Your task to perform on an android device: check google app version Image 0: 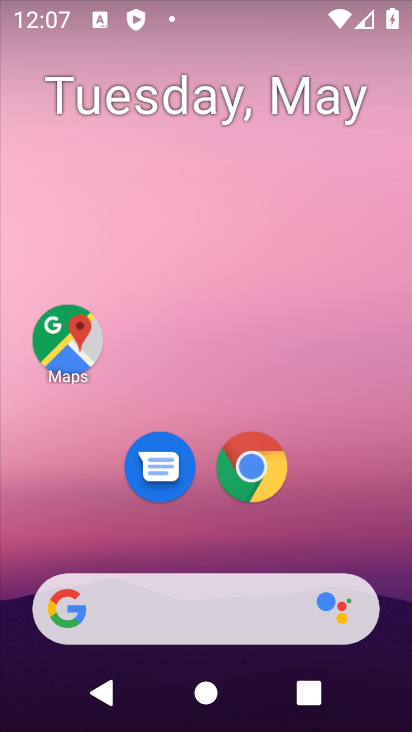
Step 0: drag from (300, 516) to (289, 51)
Your task to perform on an android device: check google app version Image 1: 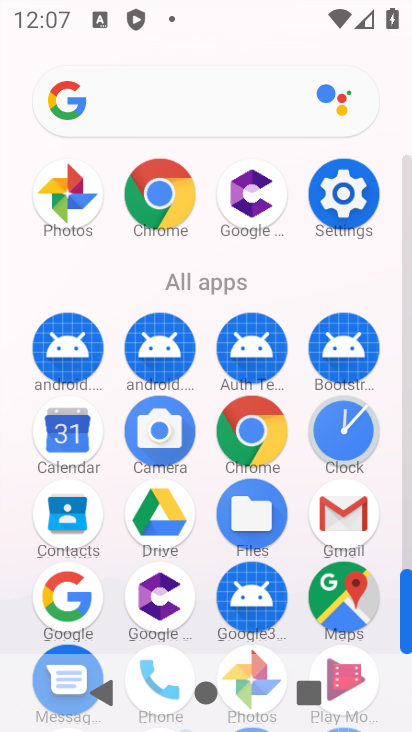
Step 1: click (82, 591)
Your task to perform on an android device: check google app version Image 2: 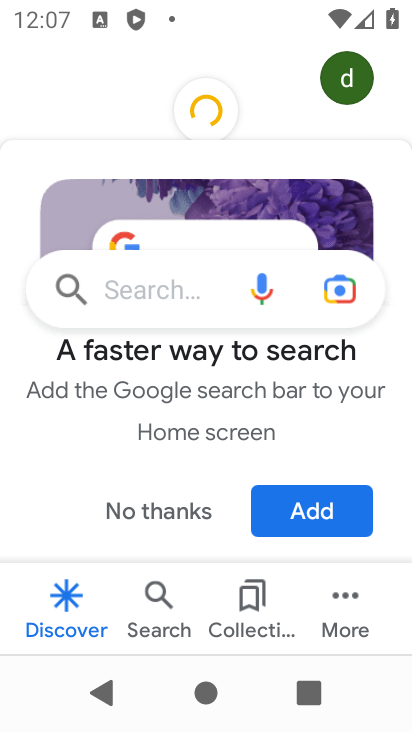
Step 2: click (345, 607)
Your task to perform on an android device: check google app version Image 3: 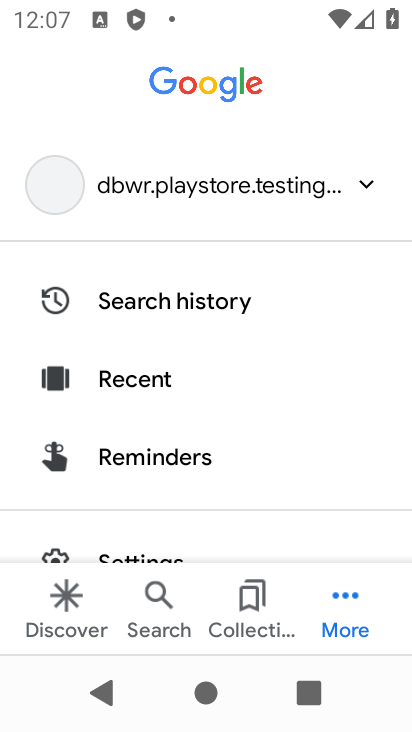
Step 3: drag from (296, 510) to (294, 260)
Your task to perform on an android device: check google app version Image 4: 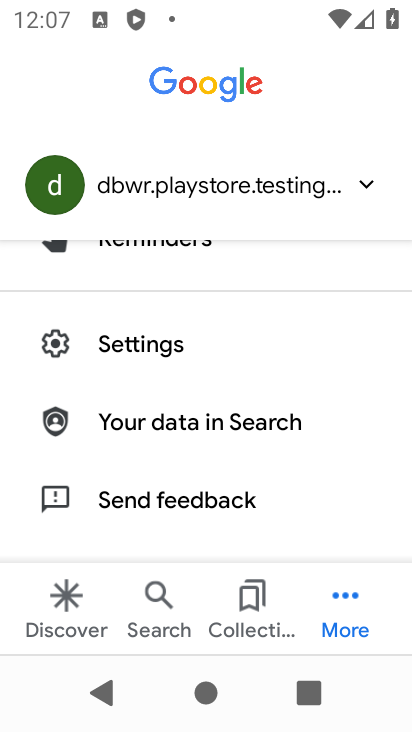
Step 4: click (171, 334)
Your task to perform on an android device: check google app version Image 5: 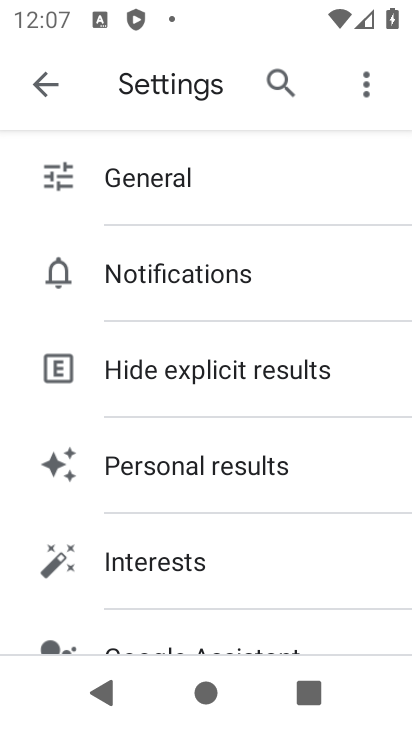
Step 5: drag from (296, 544) to (304, 146)
Your task to perform on an android device: check google app version Image 6: 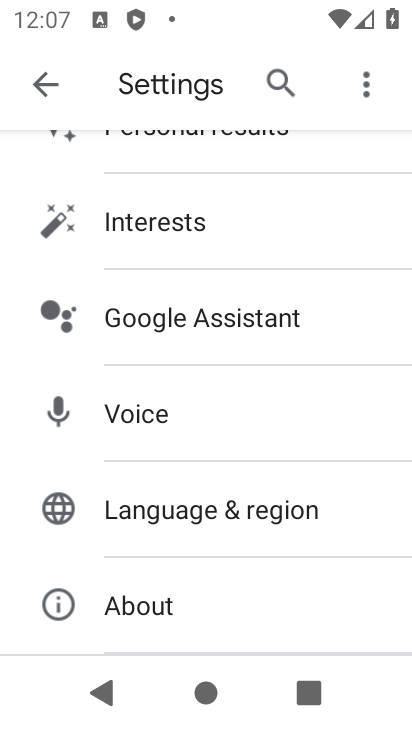
Step 6: click (169, 606)
Your task to perform on an android device: check google app version Image 7: 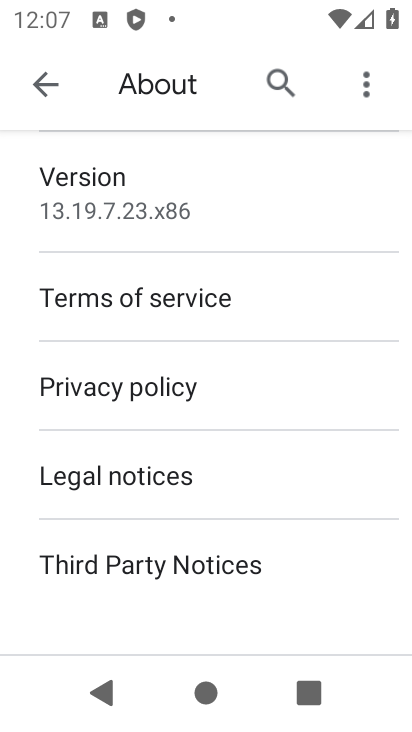
Step 7: task complete